Your task to perform on an android device: Open eBay Image 0: 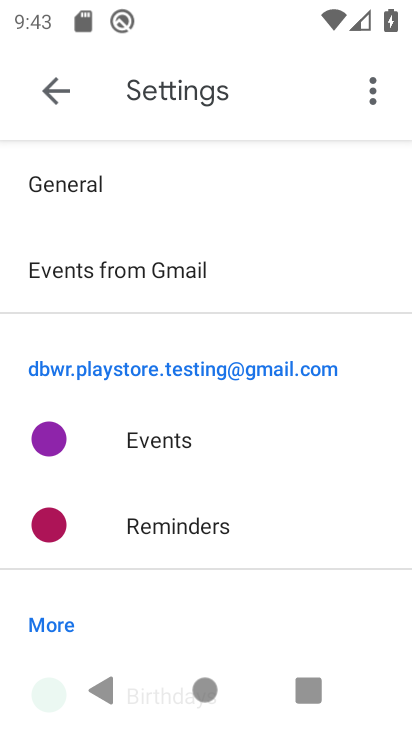
Step 0: press home button
Your task to perform on an android device: Open eBay Image 1: 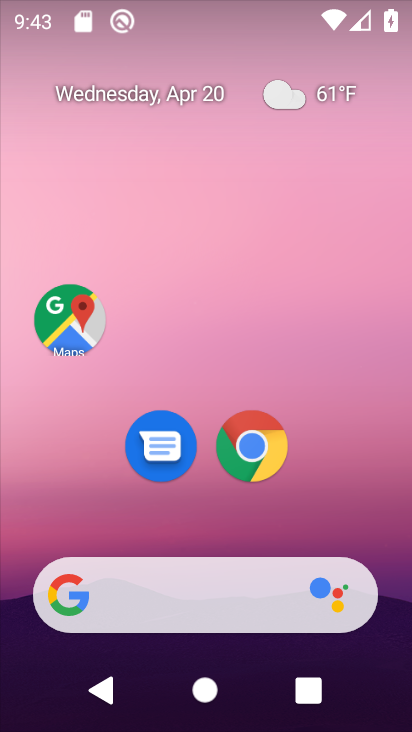
Step 1: click (270, 459)
Your task to perform on an android device: Open eBay Image 2: 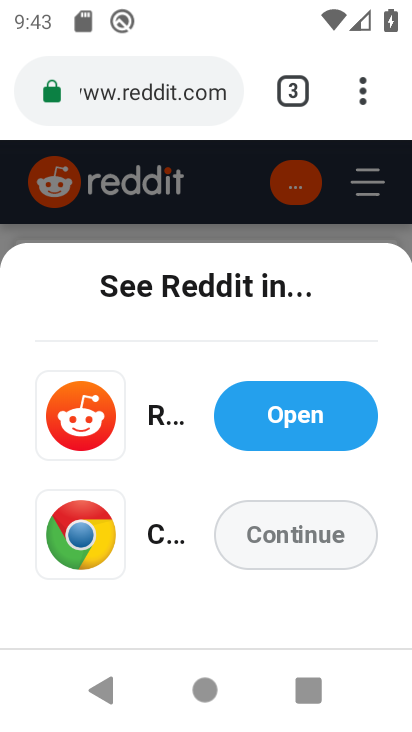
Step 2: click (285, 90)
Your task to perform on an android device: Open eBay Image 3: 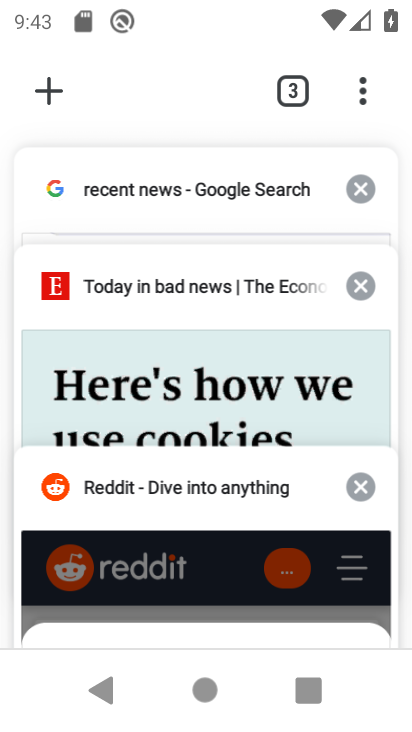
Step 3: click (50, 90)
Your task to perform on an android device: Open eBay Image 4: 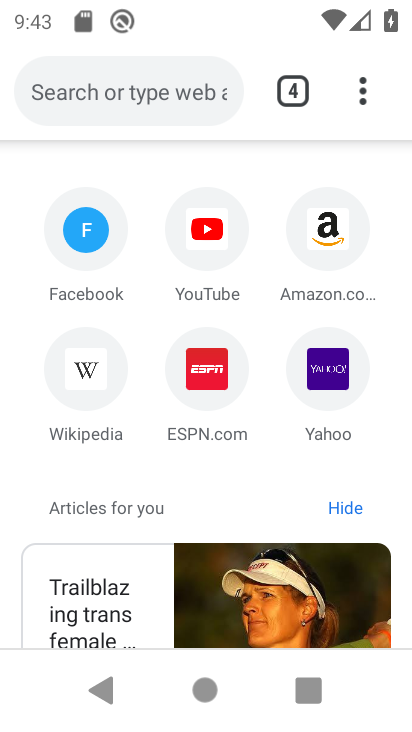
Step 4: click (154, 86)
Your task to perform on an android device: Open eBay Image 5: 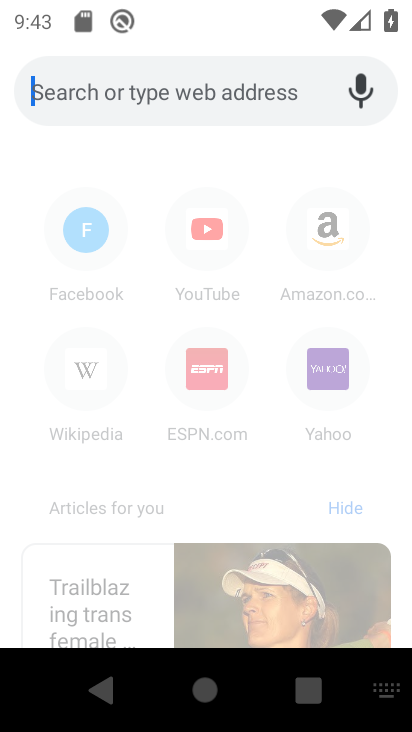
Step 5: type "ebay"
Your task to perform on an android device: Open eBay Image 6: 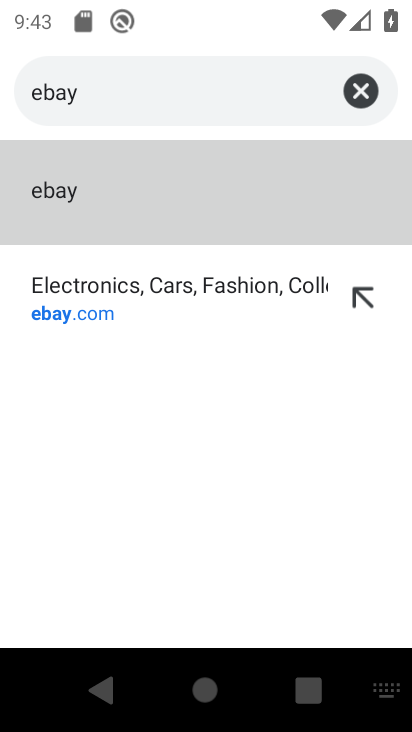
Step 6: click (24, 180)
Your task to perform on an android device: Open eBay Image 7: 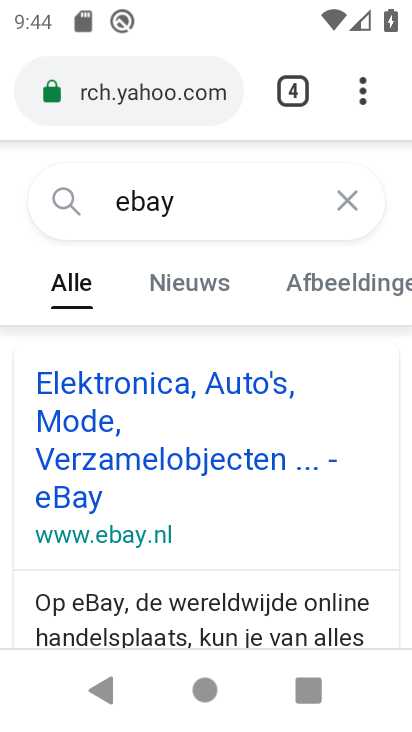
Step 7: click (114, 471)
Your task to perform on an android device: Open eBay Image 8: 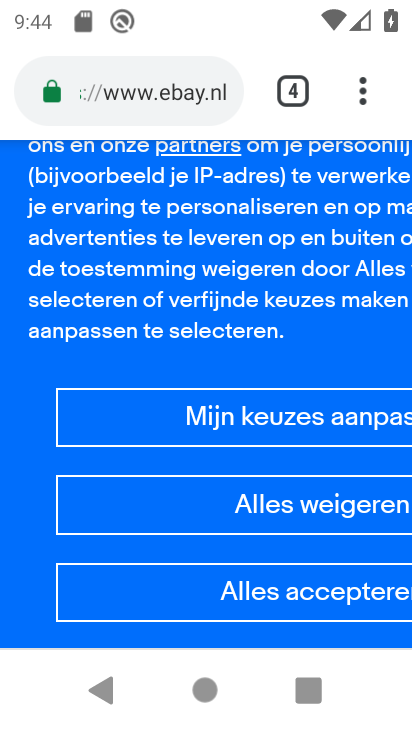
Step 8: task complete